Your task to perform on an android device: Go to CNN.com Image 0: 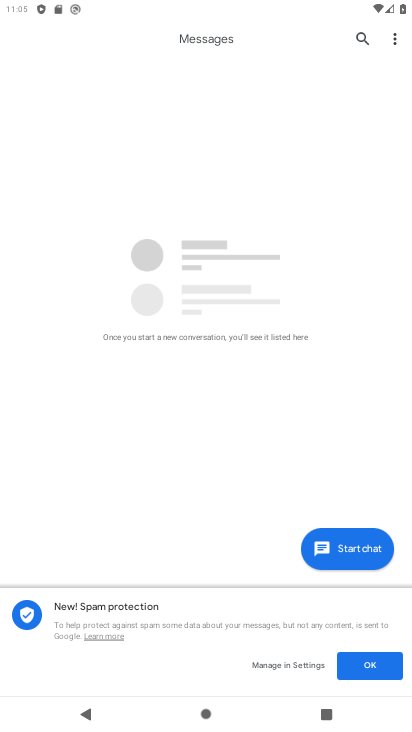
Step 0: press home button
Your task to perform on an android device: Go to CNN.com Image 1: 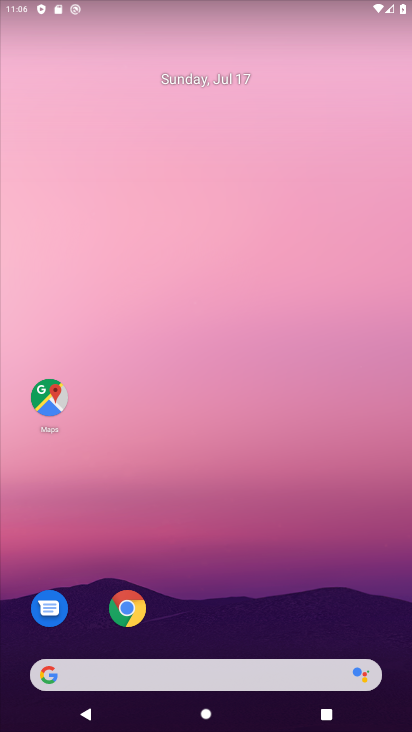
Step 1: click (133, 603)
Your task to perform on an android device: Go to CNN.com Image 2: 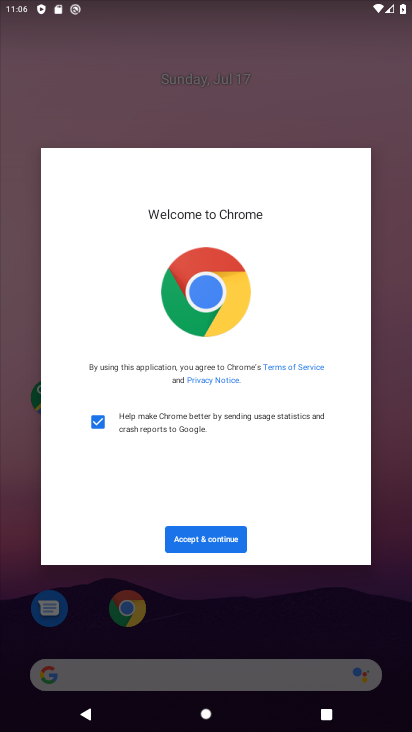
Step 2: click (200, 535)
Your task to perform on an android device: Go to CNN.com Image 3: 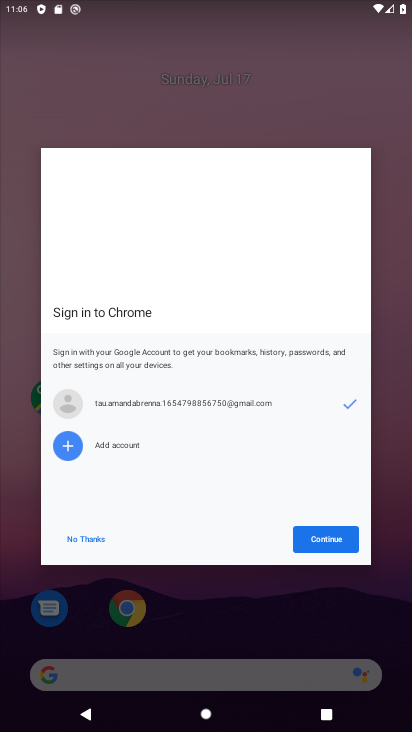
Step 3: click (323, 535)
Your task to perform on an android device: Go to CNN.com Image 4: 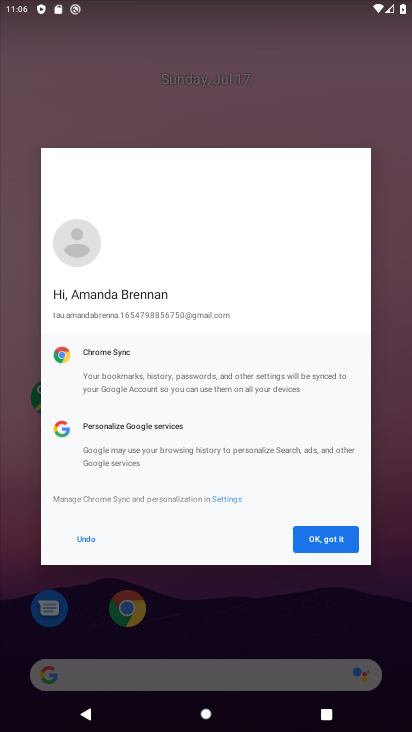
Step 4: click (323, 535)
Your task to perform on an android device: Go to CNN.com Image 5: 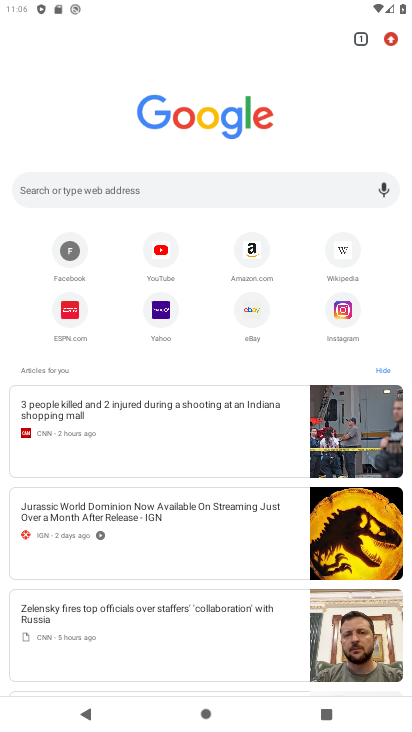
Step 5: click (239, 191)
Your task to perform on an android device: Go to CNN.com Image 6: 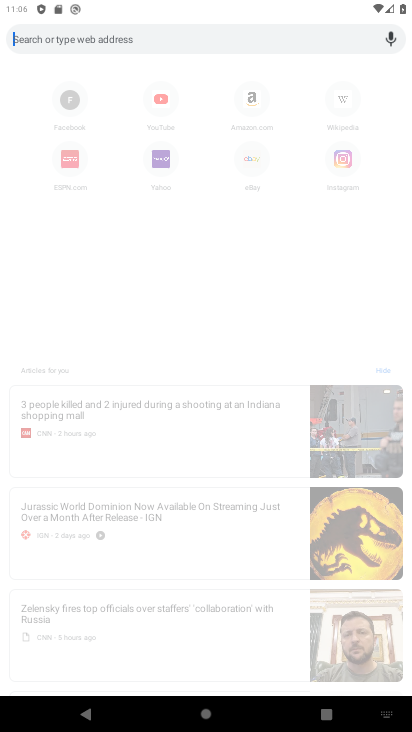
Step 6: type "CNN.com"
Your task to perform on an android device: Go to CNN.com Image 7: 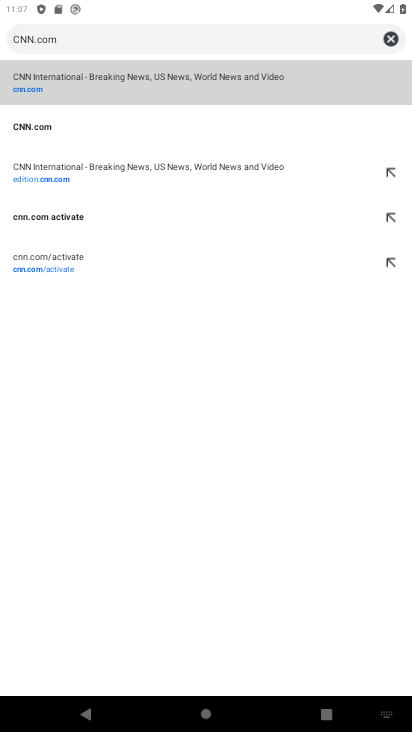
Step 7: click (144, 75)
Your task to perform on an android device: Go to CNN.com Image 8: 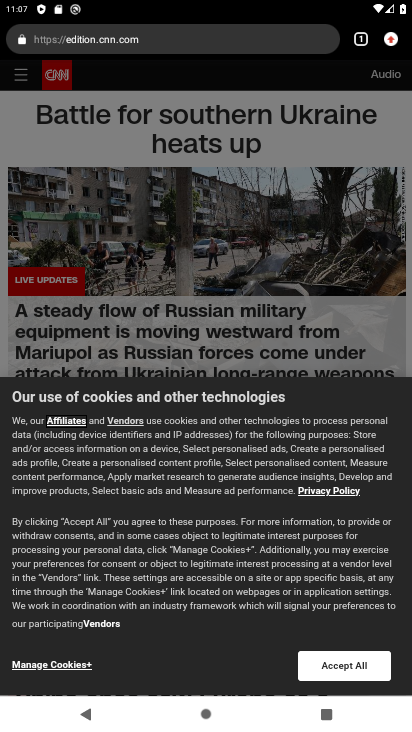
Step 8: task complete